Your task to perform on an android device: Open settings Image 0: 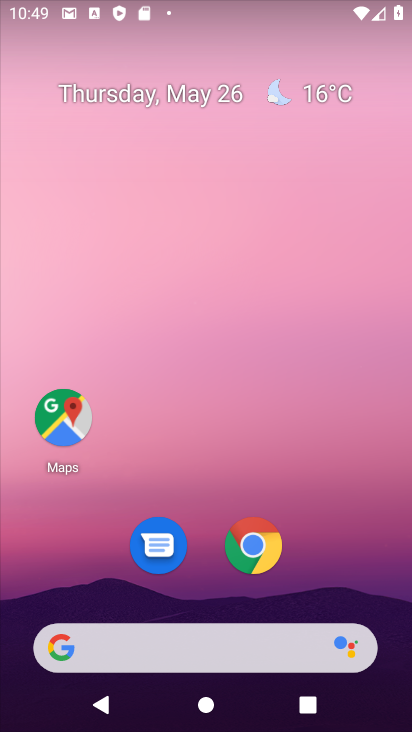
Step 0: press home button
Your task to perform on an android device: Open settings Image 1: 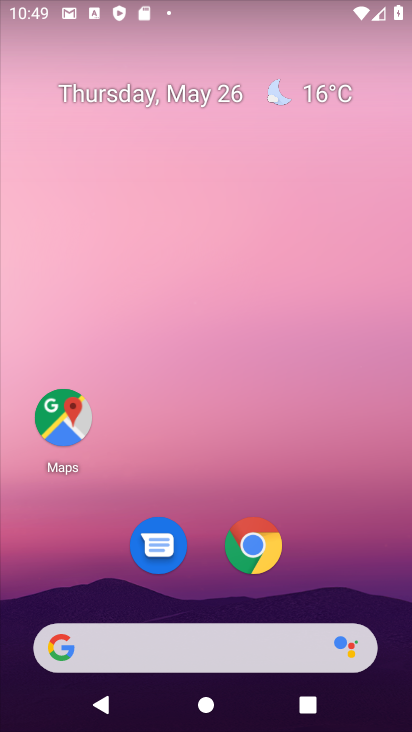
Step 1: drag from (222, 594) to (212, 277)
Your task to perform on an android device: Open settings Image 2: 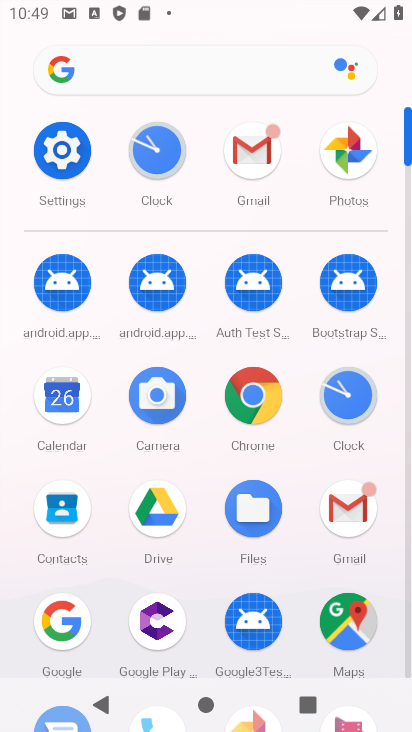
Step 2: click (61, 149)
Your task to perform on an android device: Open settings Image 3: 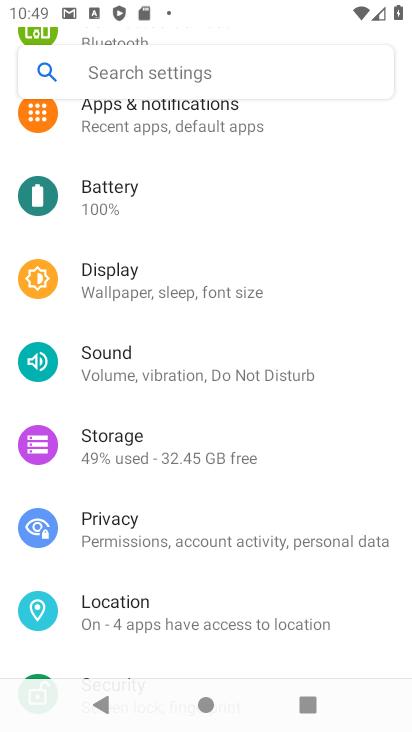
Step 3: task complete